Your task to perform on an android device: toggle data saver in the chrome app Image 0: 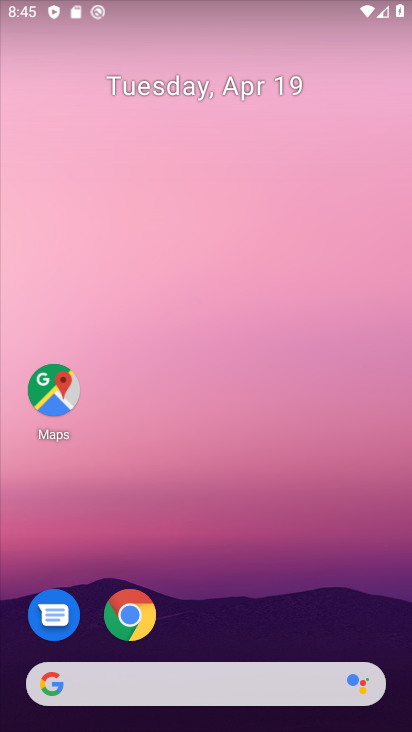
Step 0: click (120, 591)
Your task to perform on an android device: toggle data saver in the chrome app Image 1: 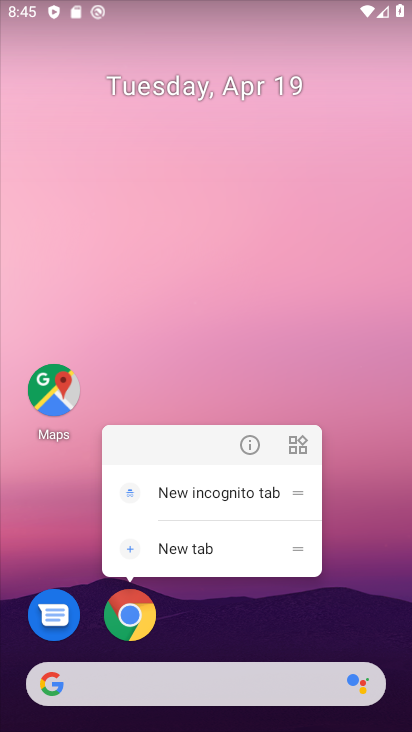
Step 1: click (135, 610)
Your task to perform on an android device: toggle data saver in the chrome app Image 2: 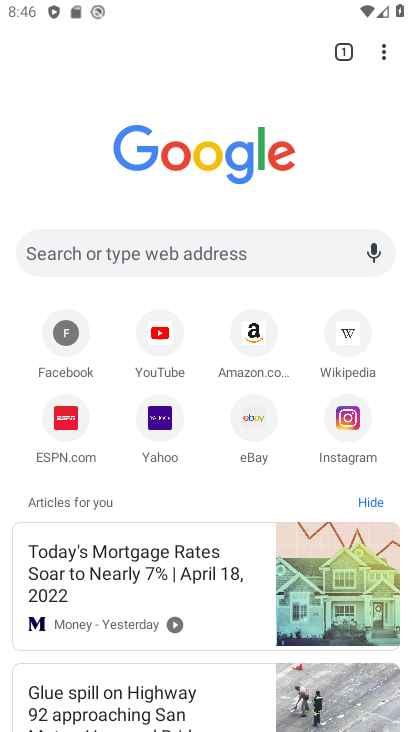
Step 2: click (383, 50)
Your task to perform on an android device: toggle data saver in the chrome app Image 3: 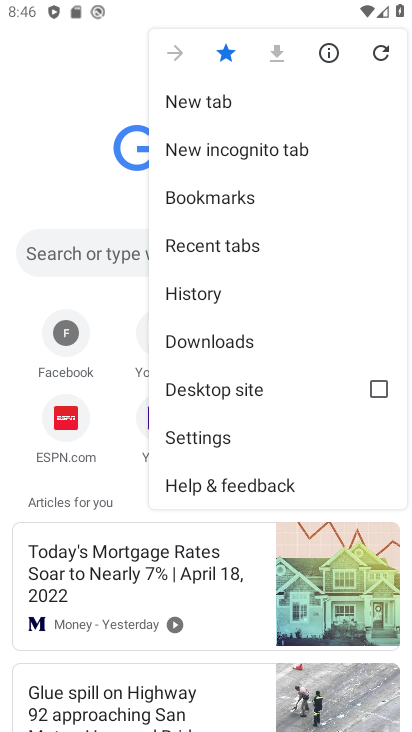
Step 3: click (196, 442)
Your task to perform on an android device: toggle data saver in the chrome app Image 4: 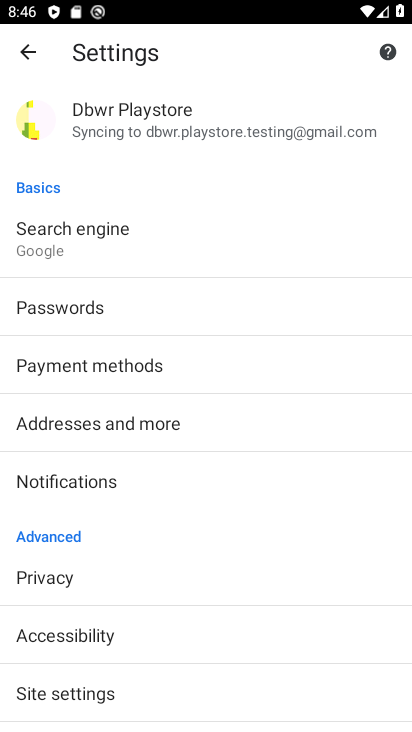
Step 4: click (93, 701)
Your task to perform on an android device: toggle data saver in the chrome app Image 5: 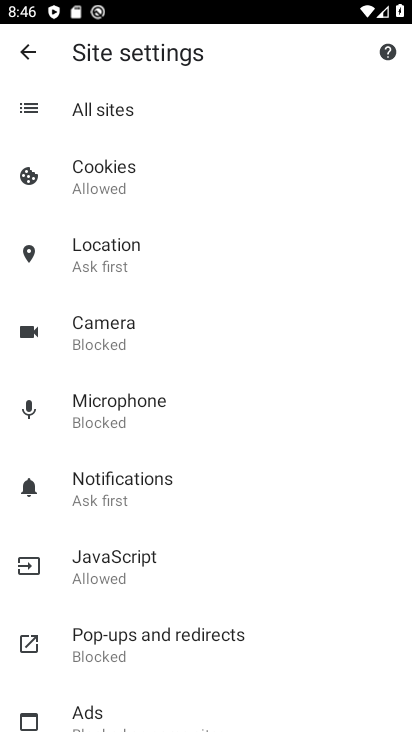
Step 5: drag from (142, 676) to (147, 157)
Your task to perform on an android device: toggle data saver in the chrome app Image 6: 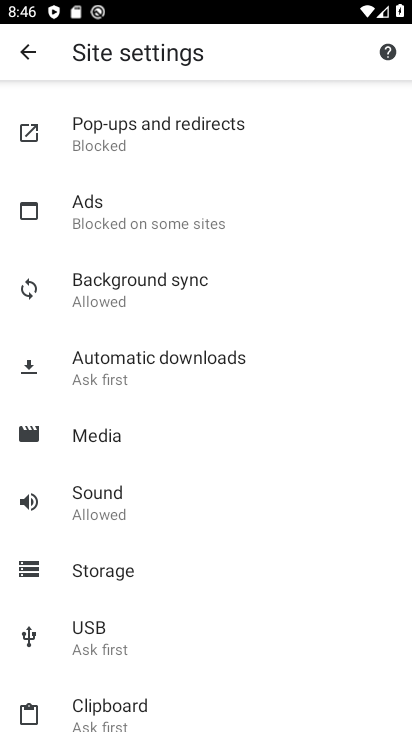
Step 6: click (39, 47)
Your task to perform on an android device: toggle data saver in the chrome app Image 7: 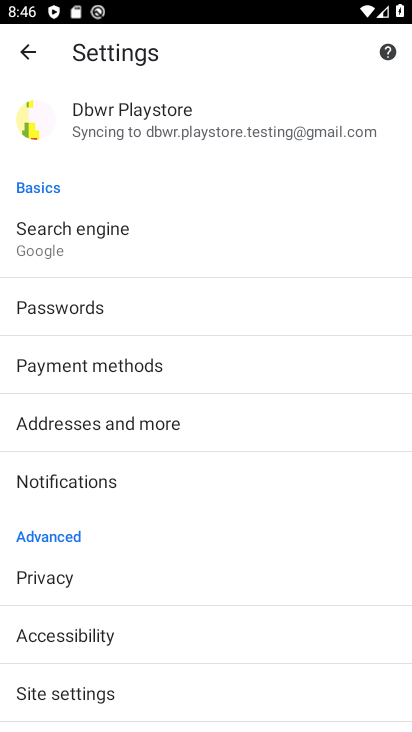
Step 7: drag from (177, 677) to (172, 95)
Your task to perform on an android device: toggle data saver in the chrome app Image 8: 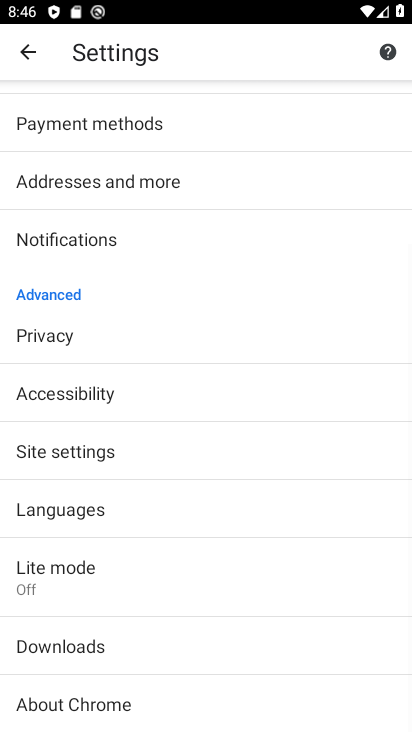
Step 8: click (95, 566)
Your task to perform on an android device: toggle data saver in the chrome app Image 9: 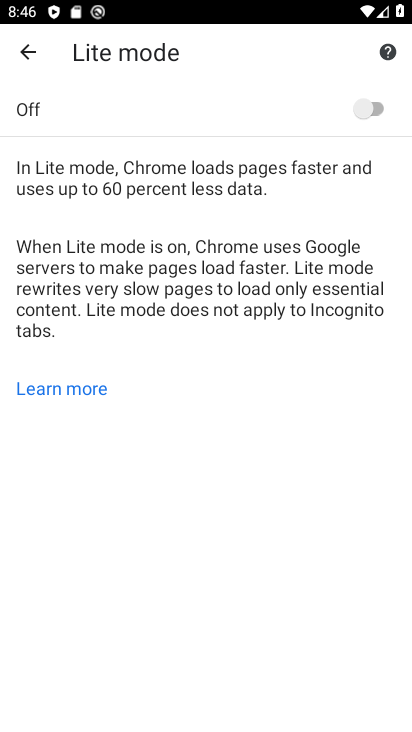
Step 9: click (382, 107)
Your task to perform on an android device: toggle data saver in the chrome app Image 10: 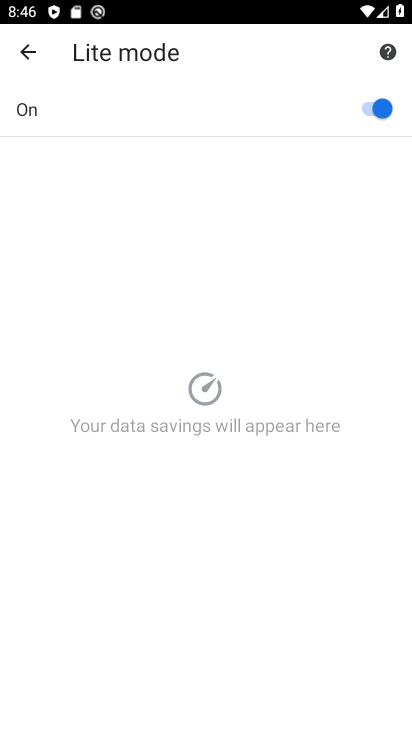
Step 10: click (382, 107)
Your task to perform on an android device: toggle data saver in the chrome app Image 11: 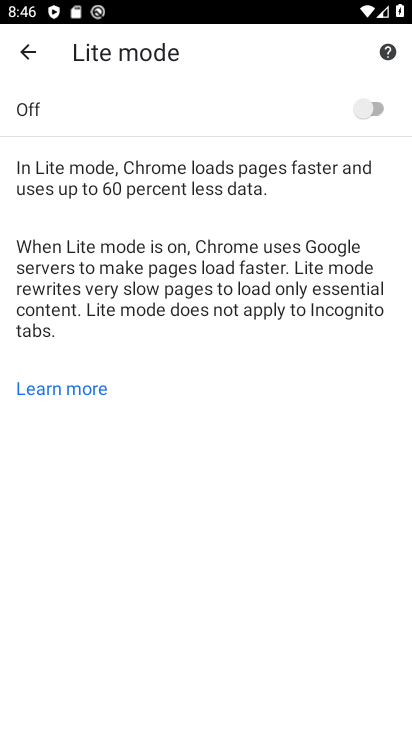
Step 11: click (382, 107)
Your task to perform on an android device: toggle data saver in the chrome app Image 12: 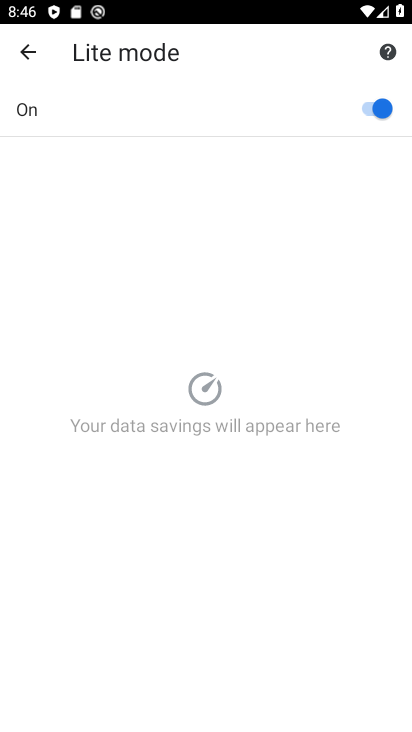
Step 12: task complete